Your task to perform on an android device: toggle airplane mode Image 0: 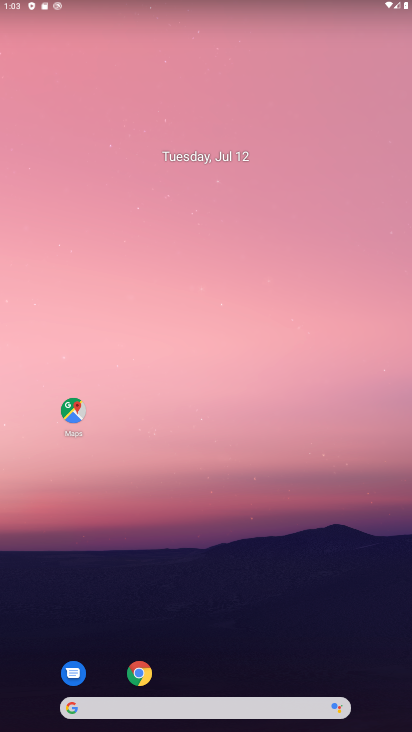
Step 0: drag from (294, 553) to (298, 441)
Your task to perform on an android device: toggle airplane mode Image 1: 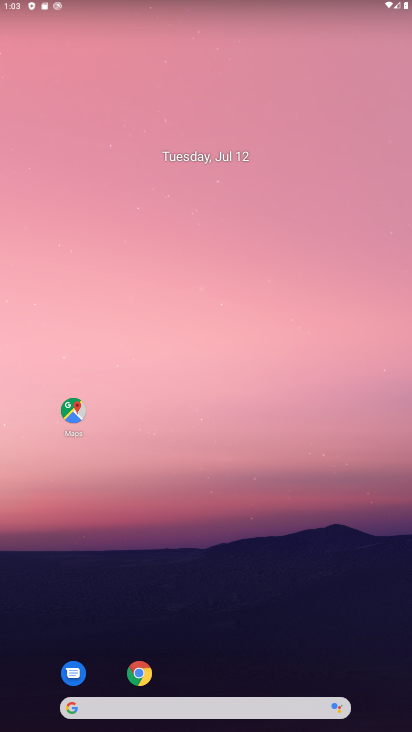
Step 1: drag from (190, 666) to (205, 298)
Your task to perform on an android device: toggle airplane mode Image 2: 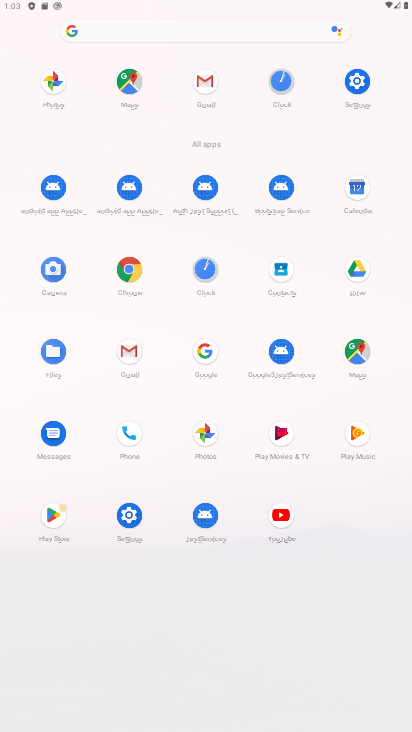
Step 2: click (364, 78)
Your task to perform on an android device: toggle airplane mode Image 3: 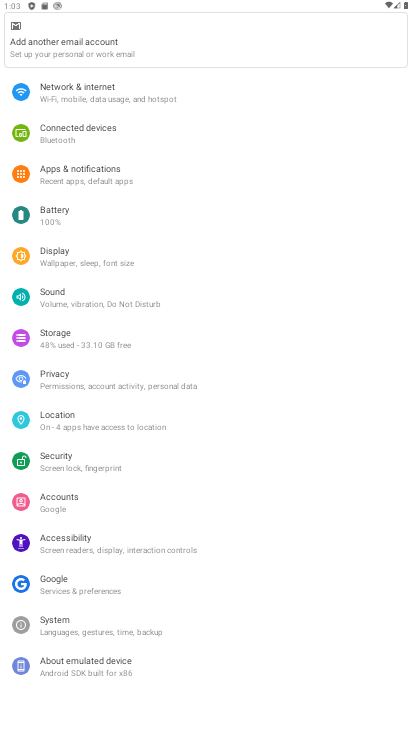
Step 3: click (108, 94)
Your task to perform on an android device: toggle airplane mode Image 4: 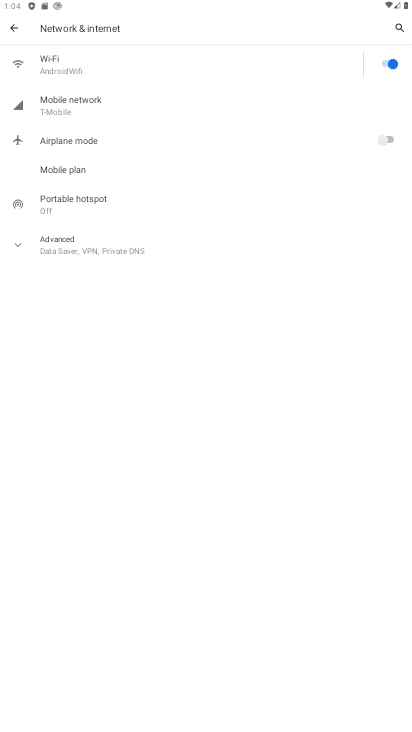
Step 4: click (392, 138)
Your task to perform on an android device: toggle airplane mode Image 5: 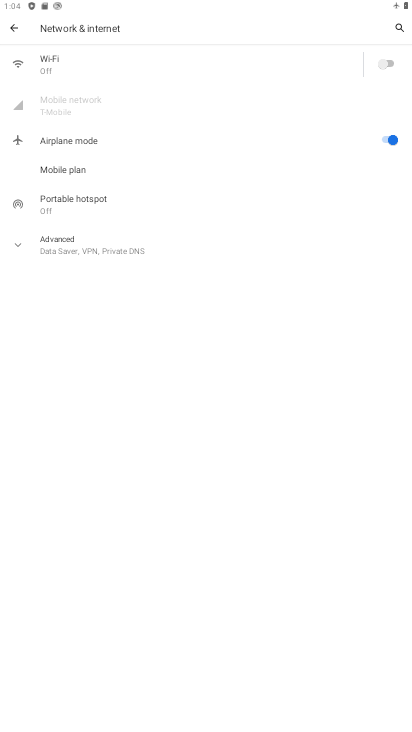
Step 5: task complete